Your task to perform on an android device: toggle location history Image 0: 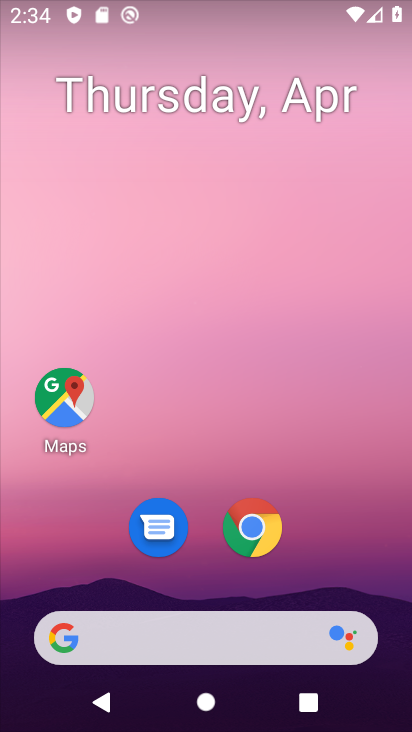
Step 0: drag from (284, 582) to (371, 66)
Your task to perform on an android device: toggle location history Image 1: 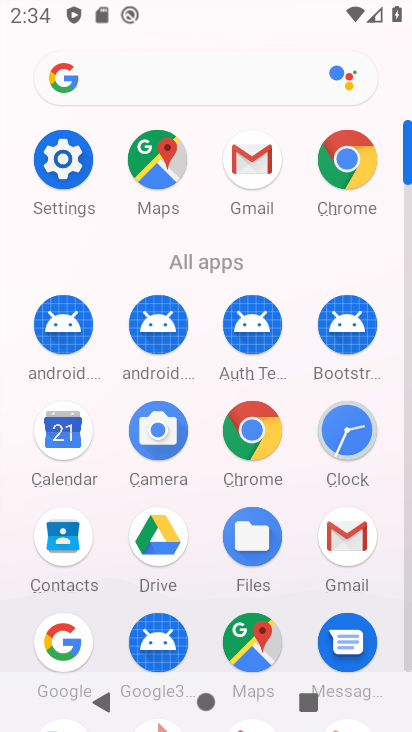
Step 1: click (78, 163)
Your task to perform on an android device: toggle location history Image 2: 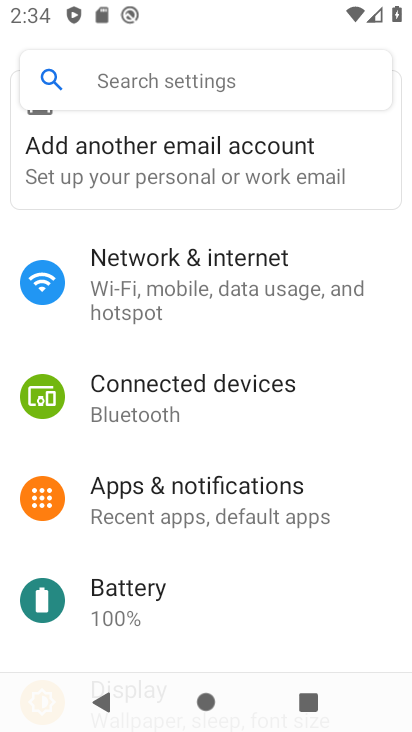
Step 2: drag from (117, 613) to (198, 276)
Your task to perform on an android device: toggle location history Image 3: 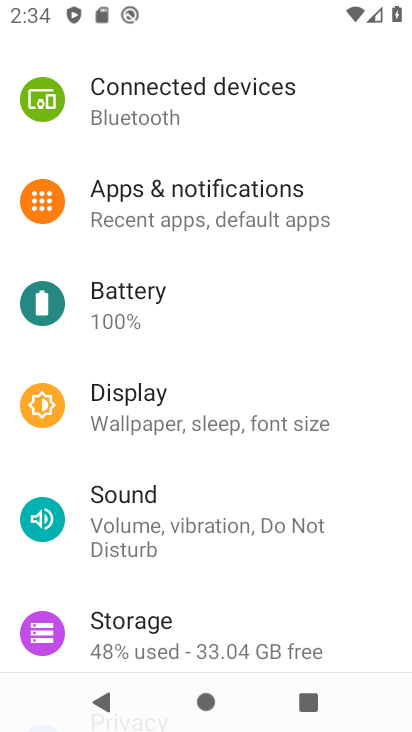
Step 3: drag from (182, 540) to (273, 194)
Your task to perform on an android device: toggle location history Image 4: 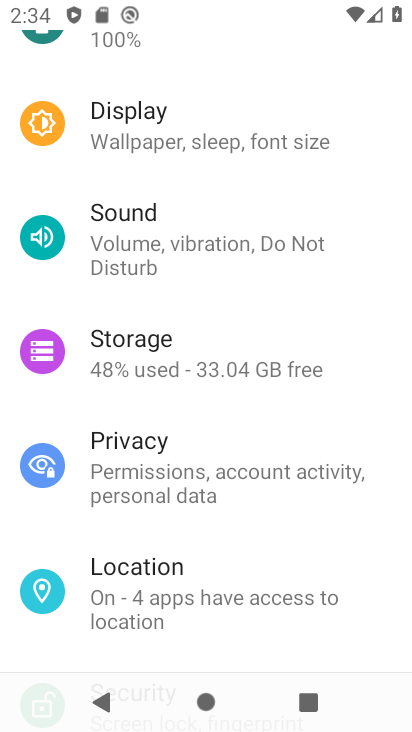
Step 4: click (122, 575)
Your task to perform on an android device: toggle location history Image 5: 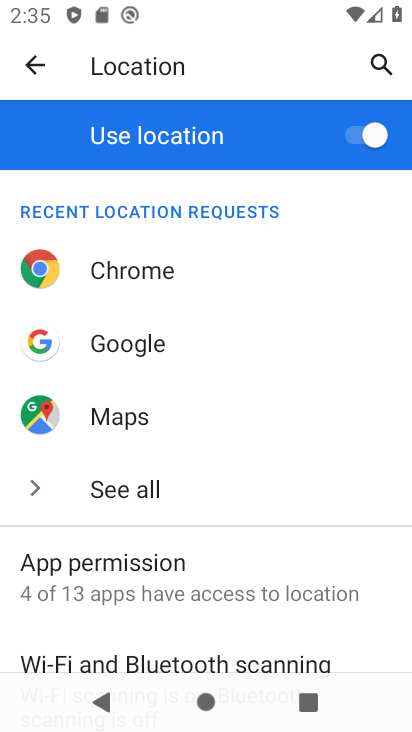
Step 5: drag from (155, 596) to (176, 400)
Your task to perform on an android device: toggle location history Image 6: 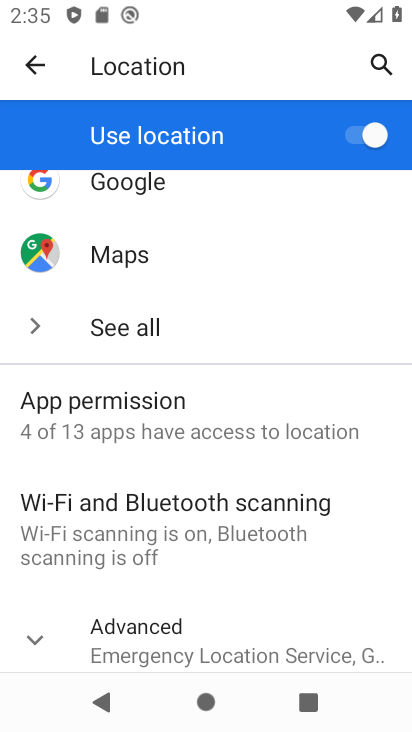
Step 6: drag from (216, 601) to (203, 374)
Your task to perform on an android device: toggle location history Image 7: 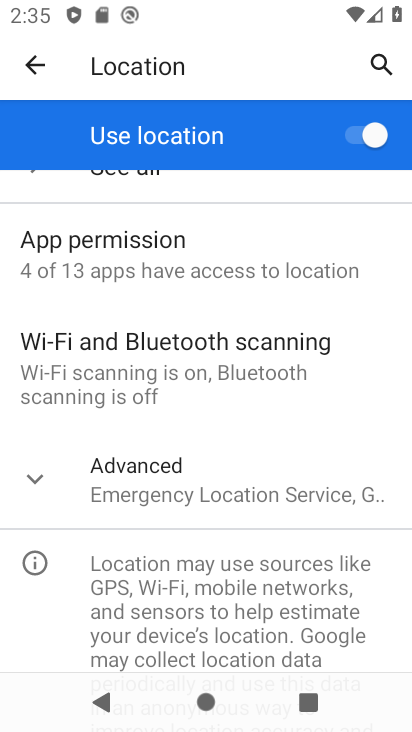
Step 7: click (144, 489)
Your task to perform on an android device: toggle location history Image 8: 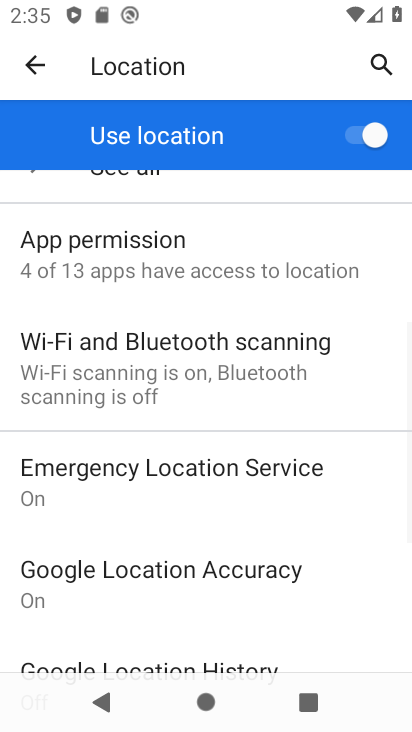
Step 8: drag from (174, 533) to (213, 306)
Your task to perform on an android device: toggle location history Image 9: 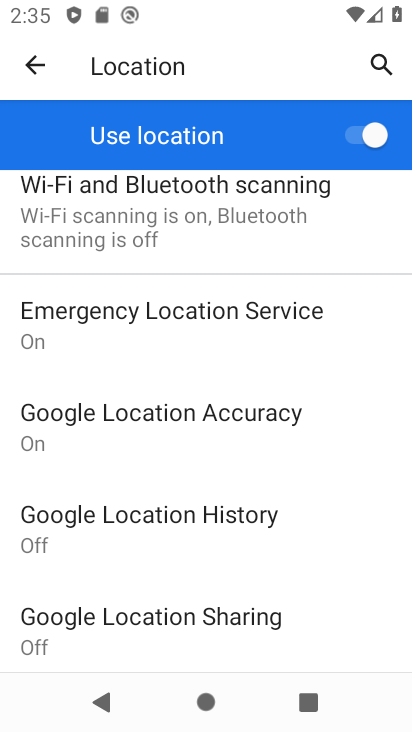
Step 9: click (191, 525)
Your task to perform on an android device: toggle location history Image 10: 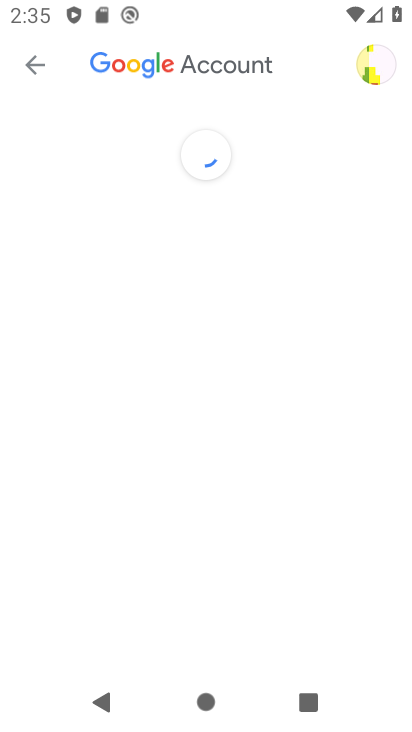
Step 10: drag from (190, 554) to (281, 271)
Your task to perform on an android device: toggle location history Image 11: 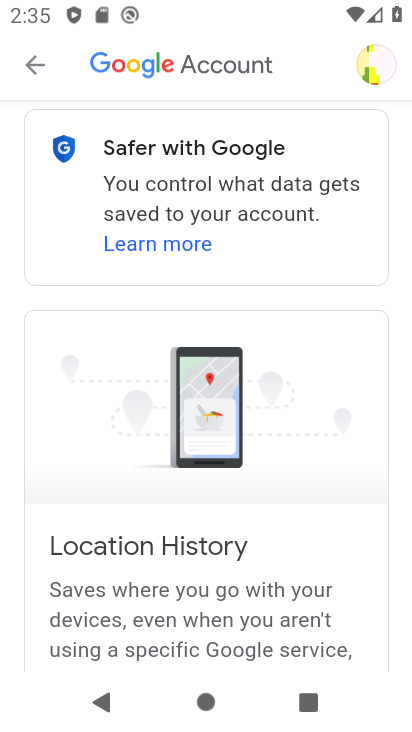
Step 11: drag from (301, 553) to (316, 156)
Your task to perform on an android device: toggle location history Image 12: 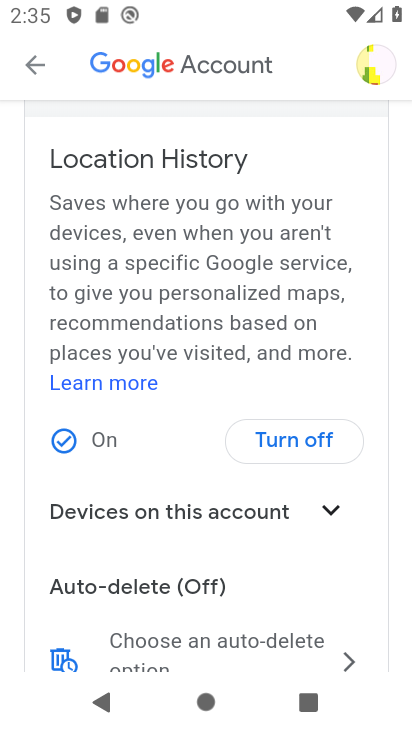
Step 12: click (292, 440)
Your task to perform on an android device: toggle location history Image 13: 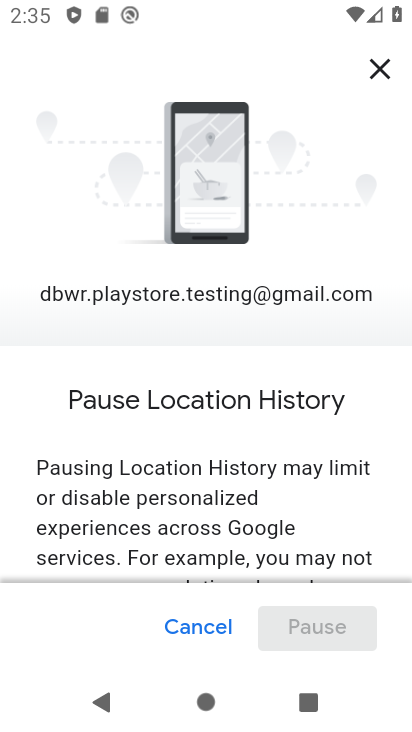
Step 13: drag from (216, 498) to (274, 68)
Your task to perform on an android device: toggle location history Image 14: 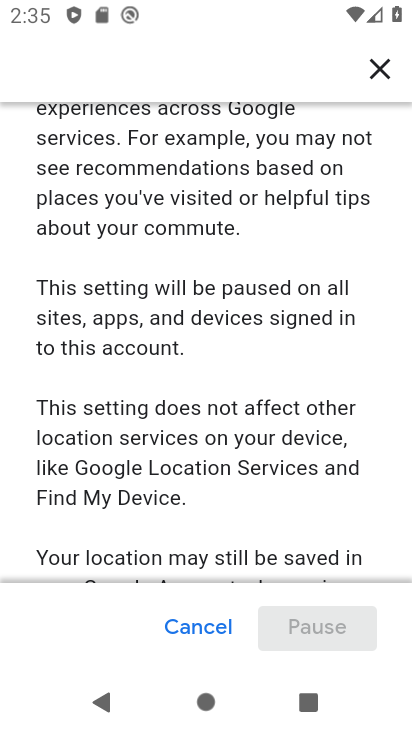
Step 14: drag from (220, 449) to (234, 14)
Your task to perform on an android device: toggle location history Image 15: 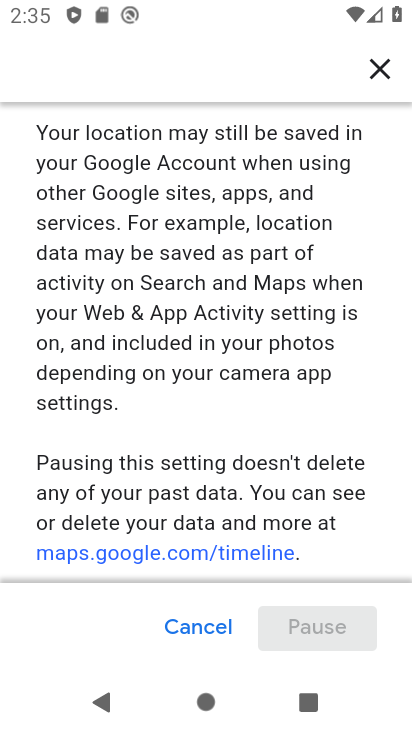
Step 15: drag from (176, 462) to (276, 0)
Your task to perform on an android device: toggle location history Image 16: 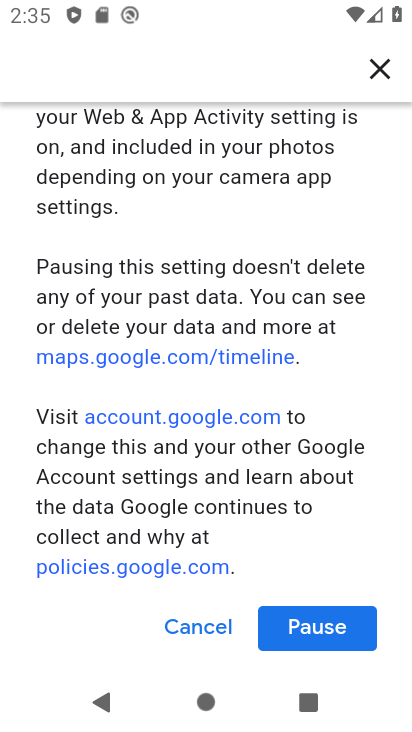
Step 16: click (356, 622)
Your task to perform on an android device: toggle location history Image 17: 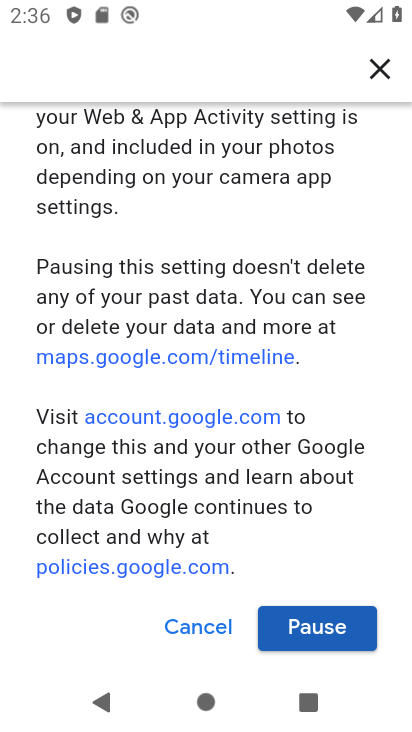
Step 17: click (333, 608)
Your task to perform on an android device: toggle location history Image 18: 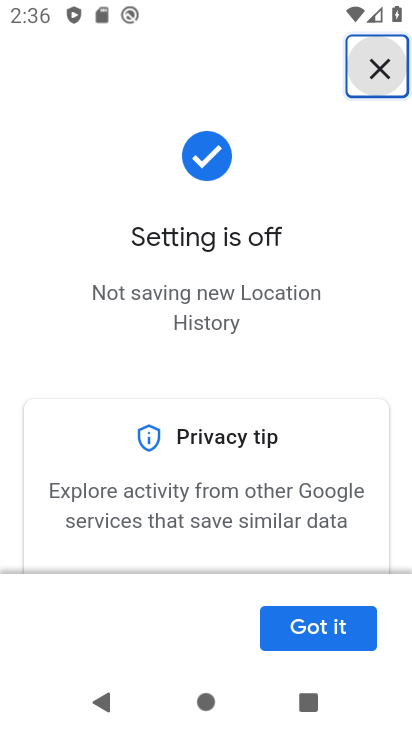
Step 18: click (310, 607)
Your task to perform on an android device: toggle location history Image 19: 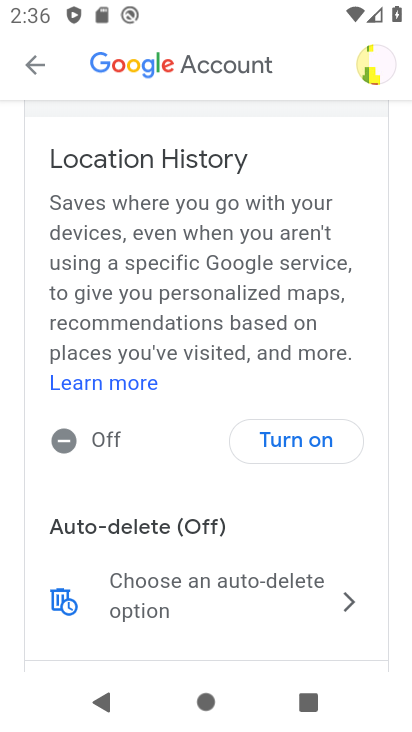
Step 19: task complete